Your task to perform on an android device: check out phone information Image 0: 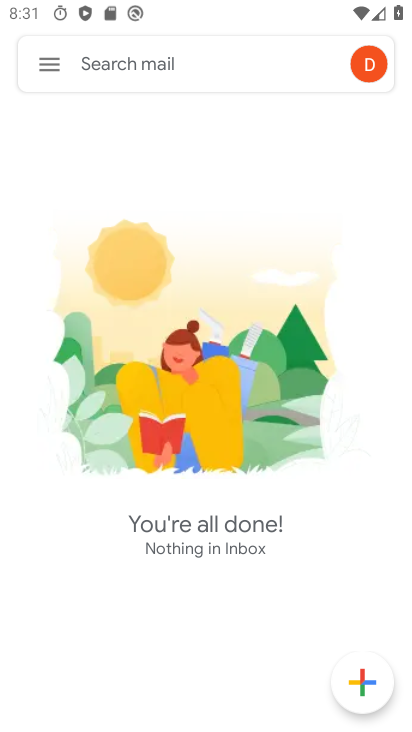
Step 0: press home button
Your task to perform on an android device: check out phone information Image 1: 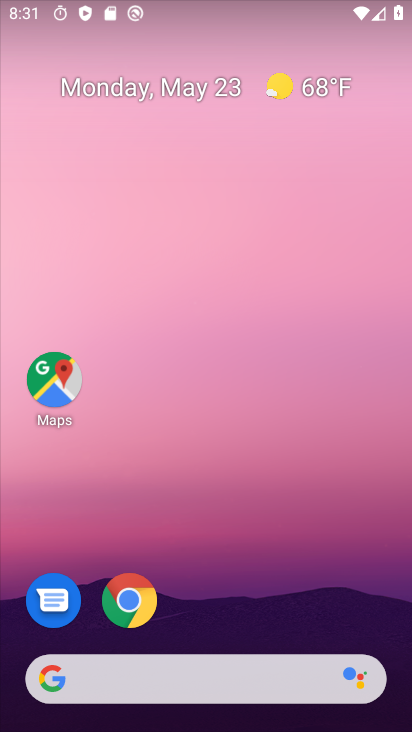
Step 1: drag from (36, 520) to (267, 156)
Your task to perform on an android device: check out phone information Image 2: 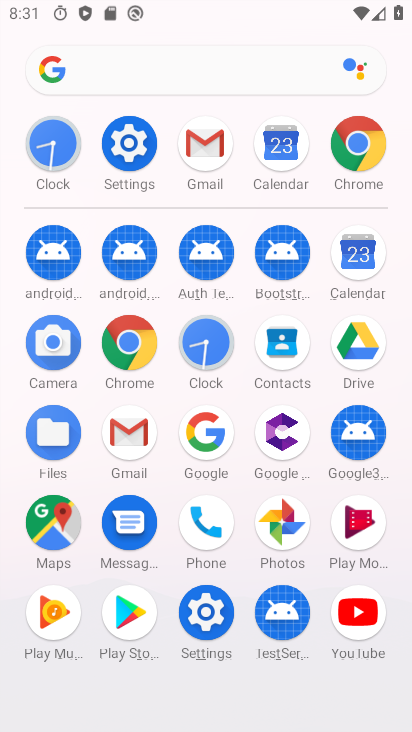
Step 2: click (224, 536)
Your task to perform on an android device: check out phone information Image 3: 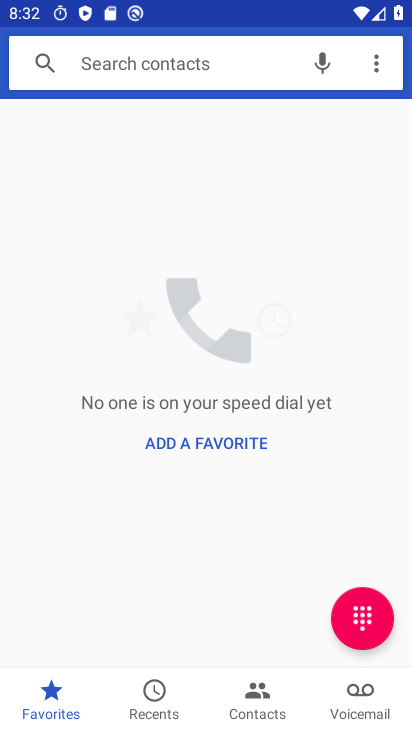
Step 3: task complete